Your task to perform on an android device: turn on sleep mode Image 0: 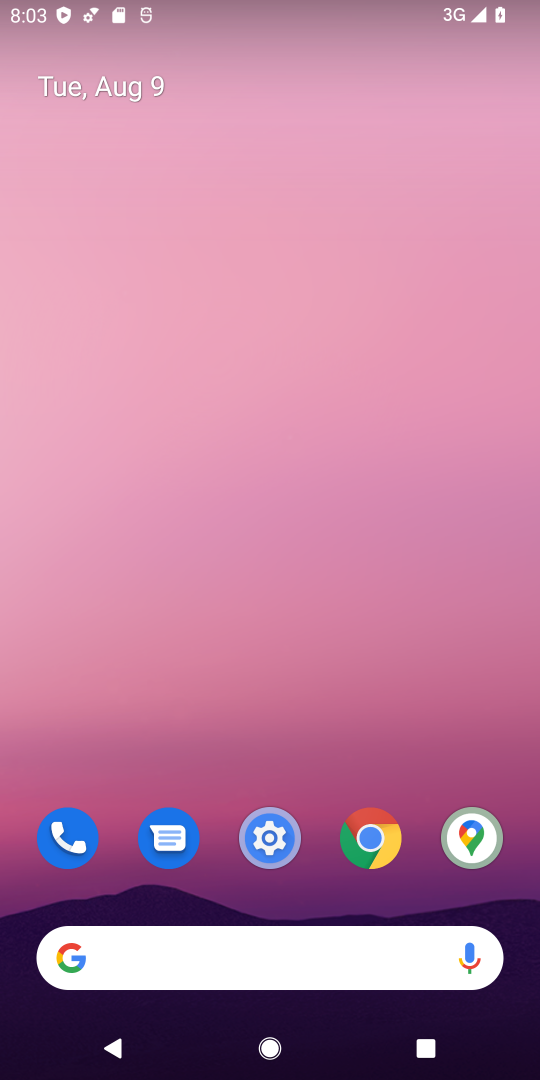
Step 0: click (282, 845)
Your task to perform on an android device: turn on sleep mode Image 1: 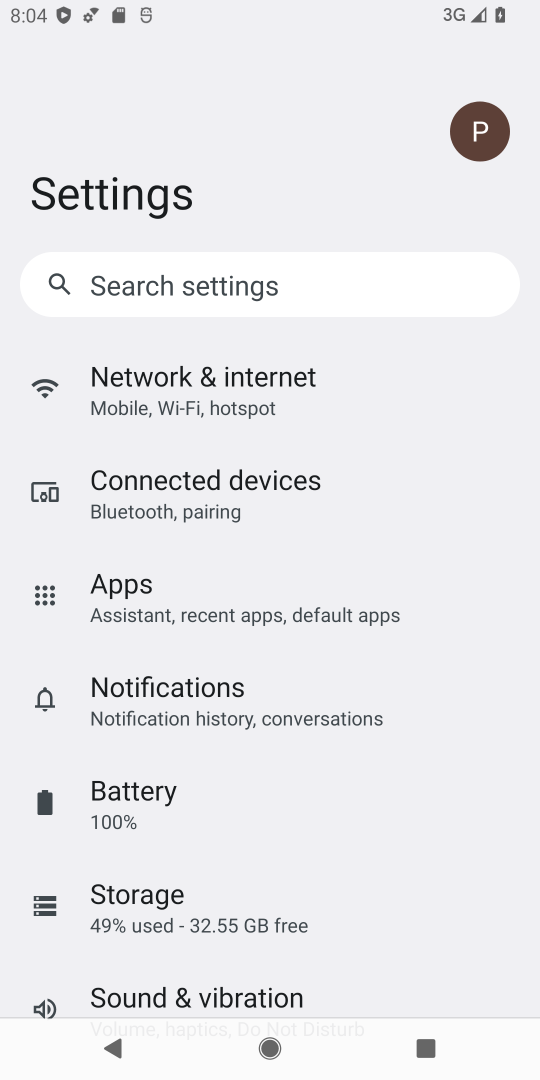
Step 1: drag from (191, 844) to (239, 354)
Your task to perform on an android device: turn on sleep mode Image 2: 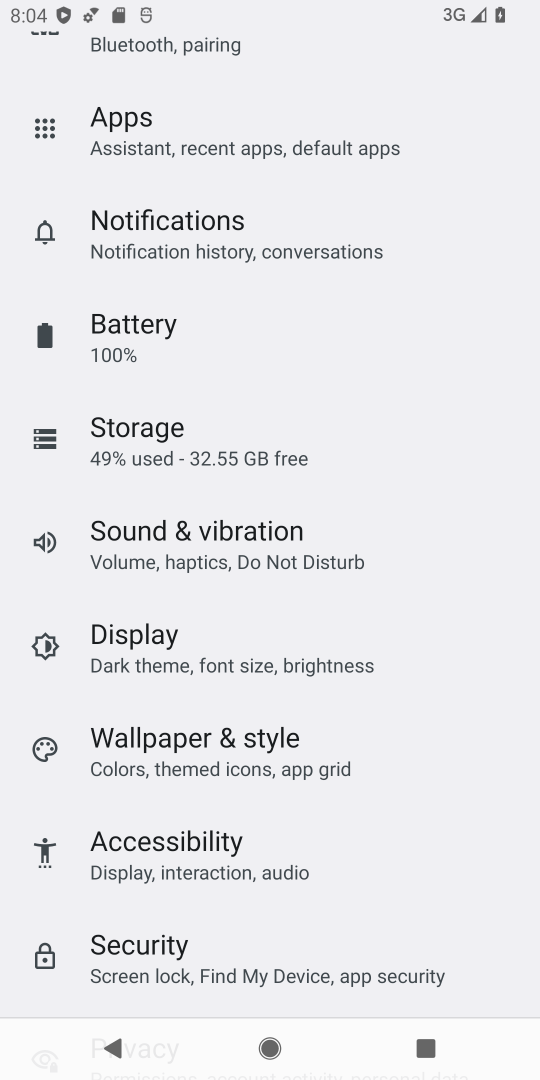
Step 2: click (162, 661)
Your task to perform on an android device: turn on sleep mode Image 3: 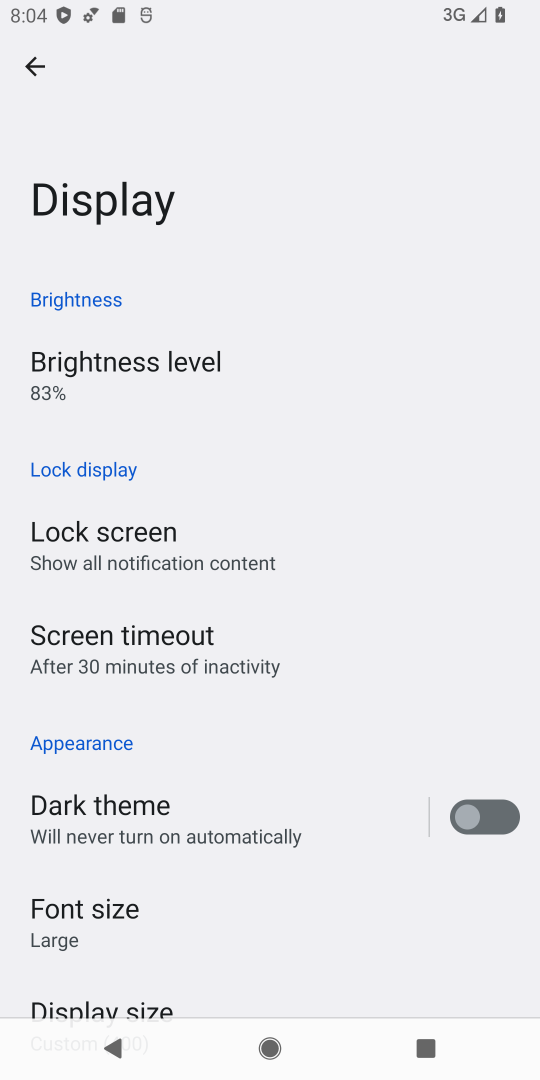
Step 3: task complete